Your task to perform on an android device: Open Google Image 0: 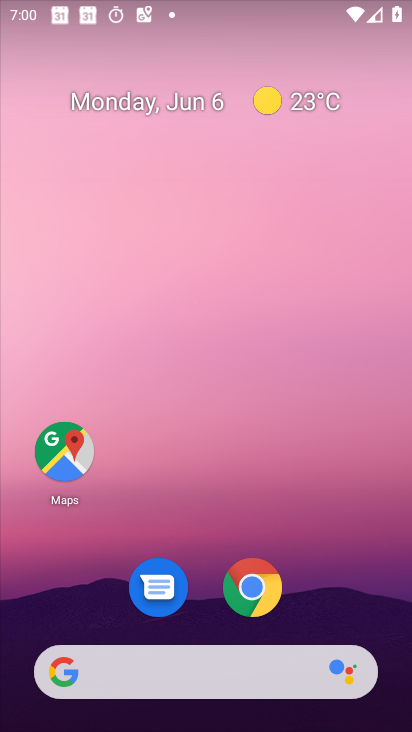
Step 0: drag from (388, 639) to (345, 329)
Your task to perform on an android device: Open Google Image 1: 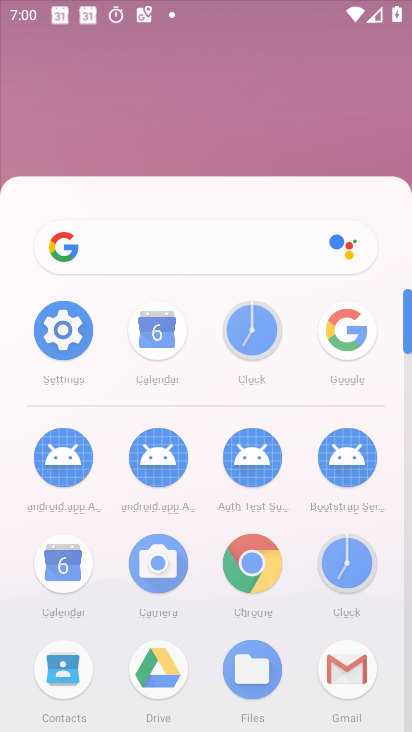
Step 1: click (269, 78)
Your task to perform on an android device: Open Google Image 2: 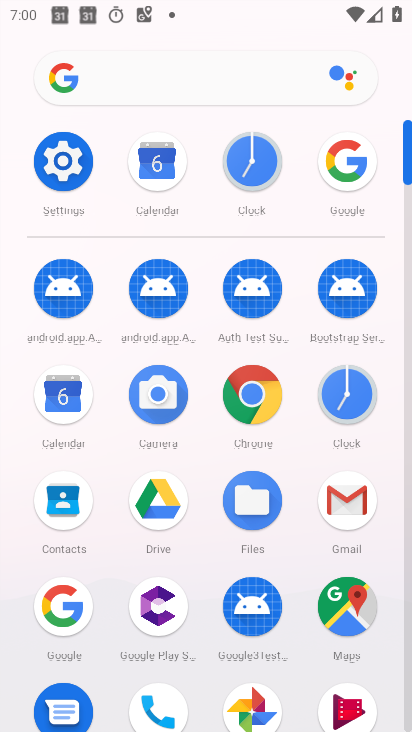
Step 2: click (61, 611)
Your task to perform on an android device: Open Google Image 3: 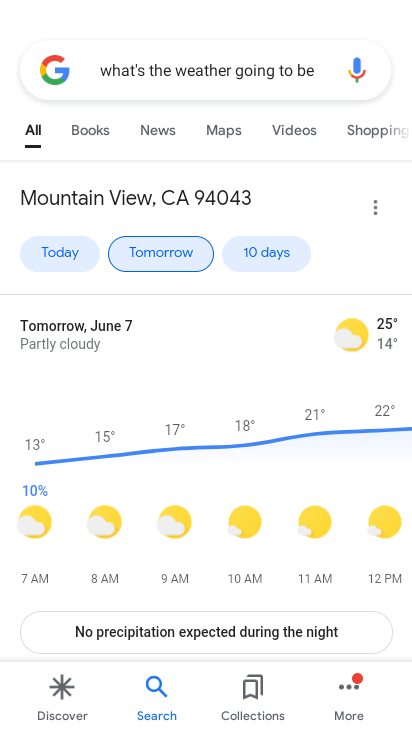
Step 3: task complete